Your task to perform on an android device: toggle notifications settings in the gmail app Image 0: 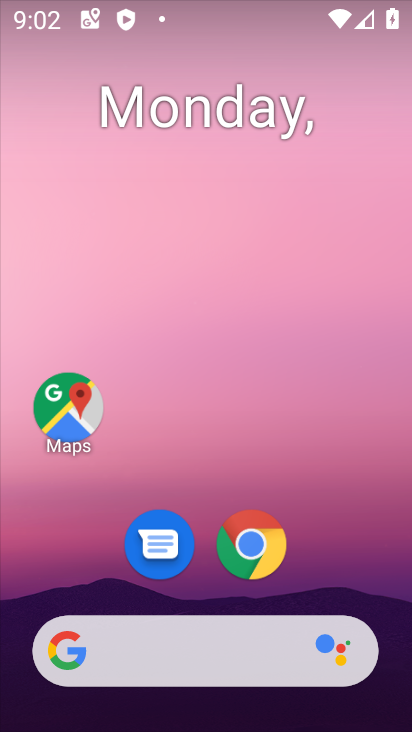
Step 0: drag from (218, 422) to (182, 9)
Your task to perform on an android device: toggle notifications settings in the gmail app Image 1: 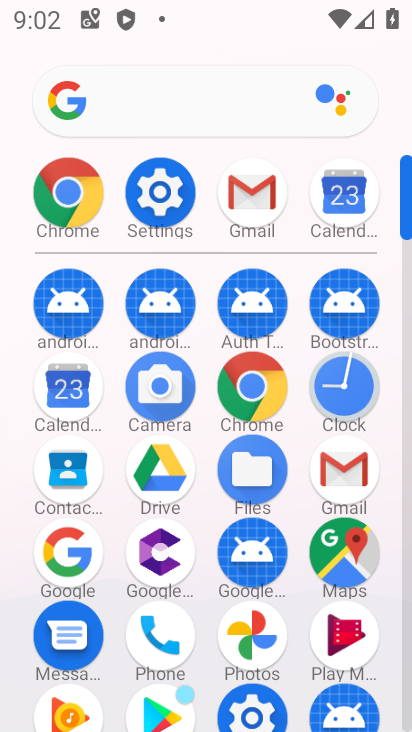
Step 1: click (253, 185)
Your task to perform on an android device: toggle notifications settings in the gmail app Image 2: 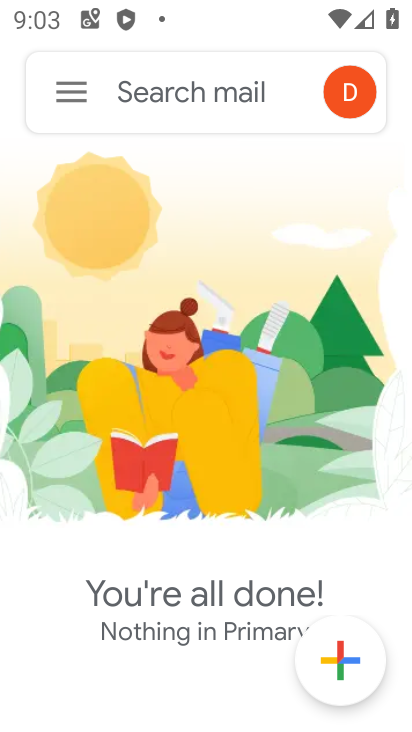
Step 2: click (54, 91)
Your task to perform on an android device: toggle notifications settings in the gmail app Image 3: 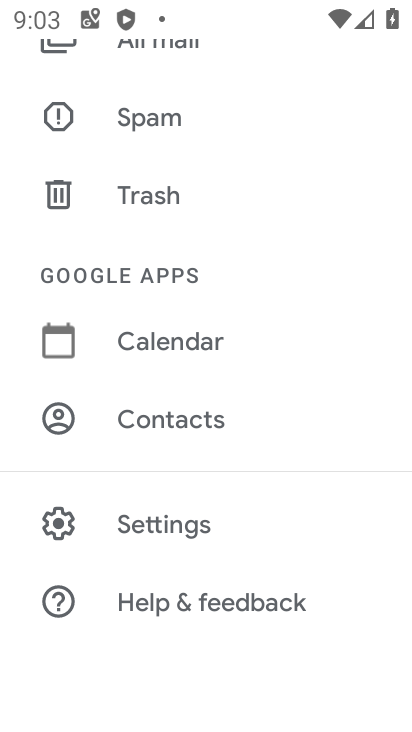
Step 3: click (167, 533)
Your task to perform on an android device: toggle notifications settings in the gmail app Image 4: 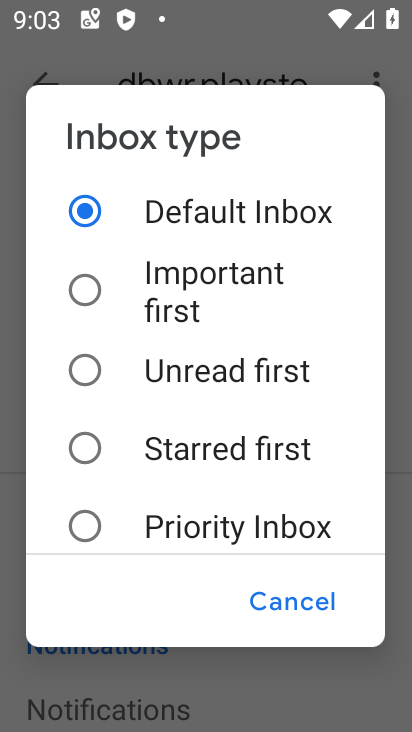
Step 4: click (290, 589)
Your task to perform on an android device: toggle notifications settings in the gmail app Image 5: 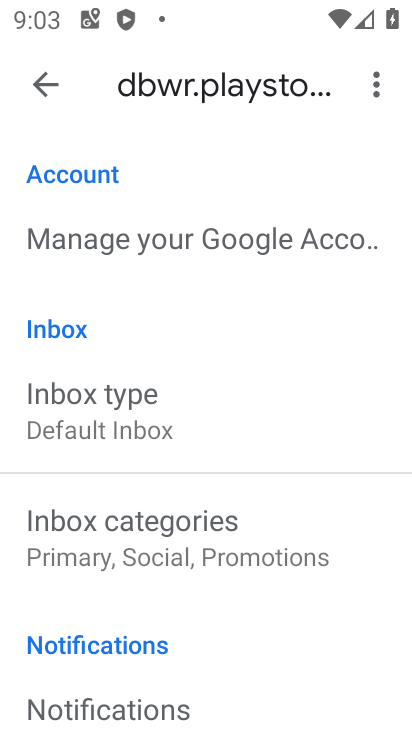
Step 5: drag from (225, 356) to (208, 193)
Your task to perform on an android device: toggle notifications settings in the gmail app Image 6: 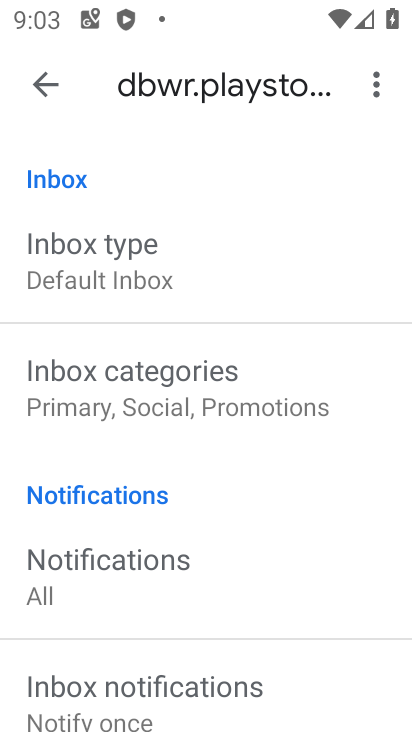
Step 6: click (56, 85)
Your task to perform on an android device: toggle notifications settings in the gmail app Image 7: 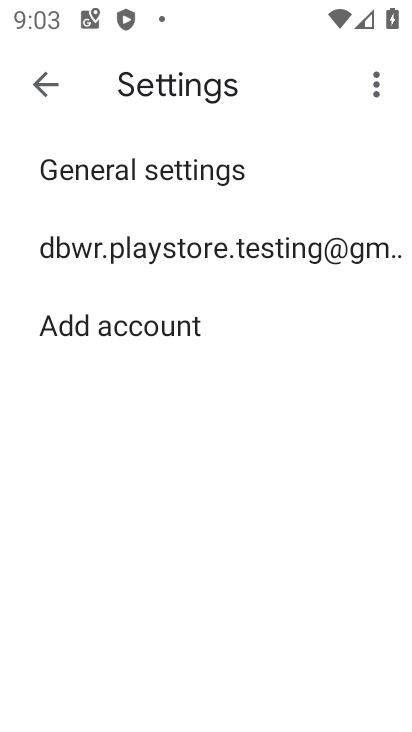
Step 7: click (144, 174)
Your task to perform on an android device: toggle notifications settings in the gmail app Image 8: 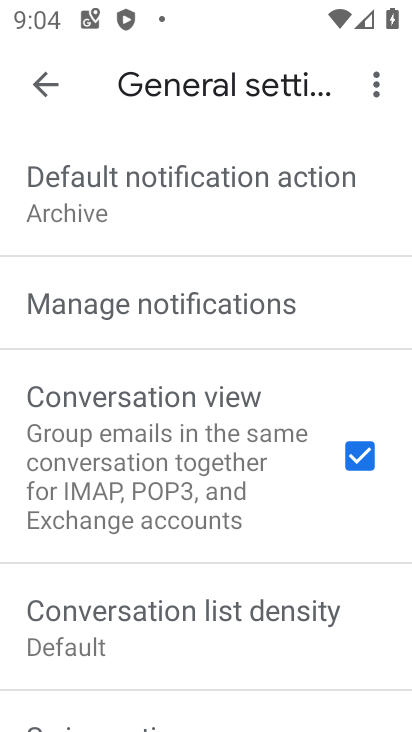
Step 8: click (119, 291)
Your task to perform on an android device: toggle notifications settings in the gmail app Image 9: 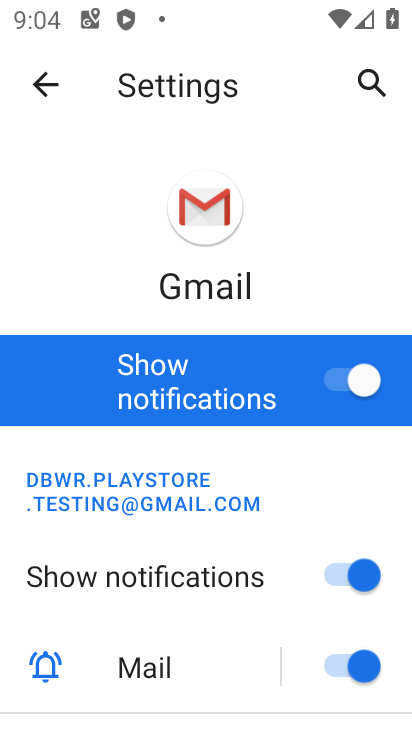
Step 9: click (357, 388)
Your task to perform on an android device: toggle notifications settings in the gmail app Image 10: 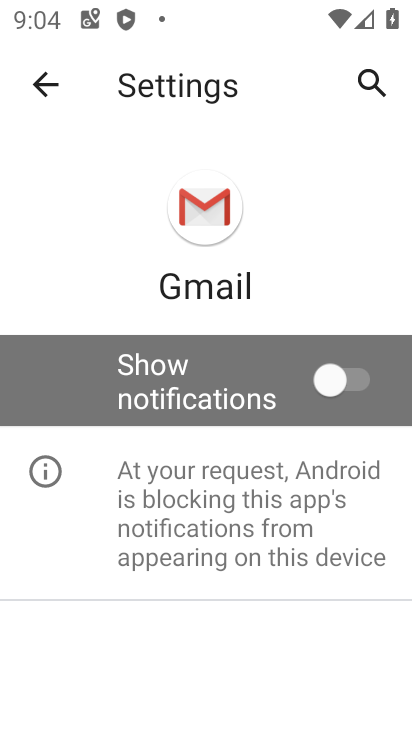
Step 10: task complete